Your task to perform on an android device: turn on notifications settings in the gmail app Image 0: 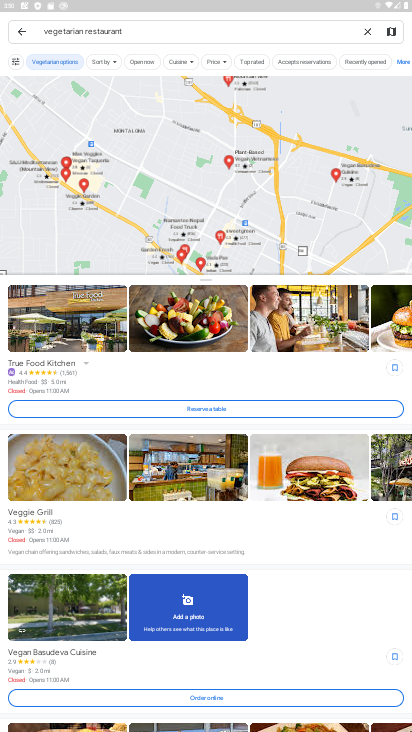
Step 0: press home button
Your task to perform on an android device: turn on notifications settings in the gmail app Image 1: 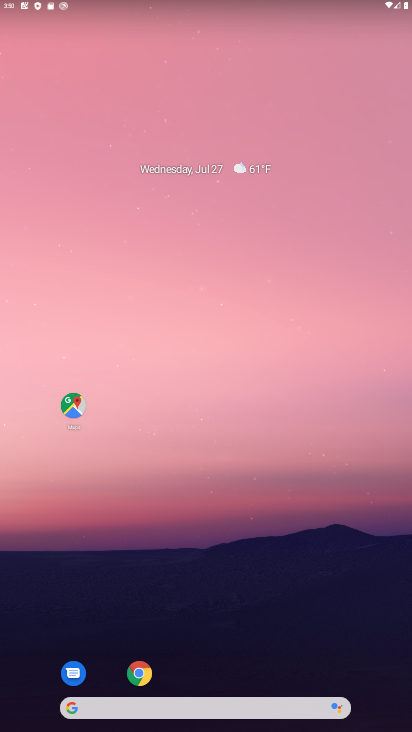
Step 1: drag from (282, 598) to (121, 3)
Your task to perform on an android device: turn on notifications settings in the gmail app Image 2: 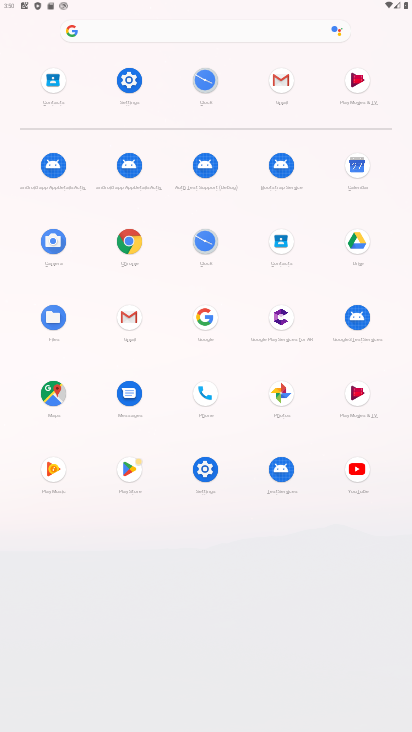
Step 2: click (280, 74)
Your task to perform on an android device: turn on notifications settings in the gmail app Image 3: 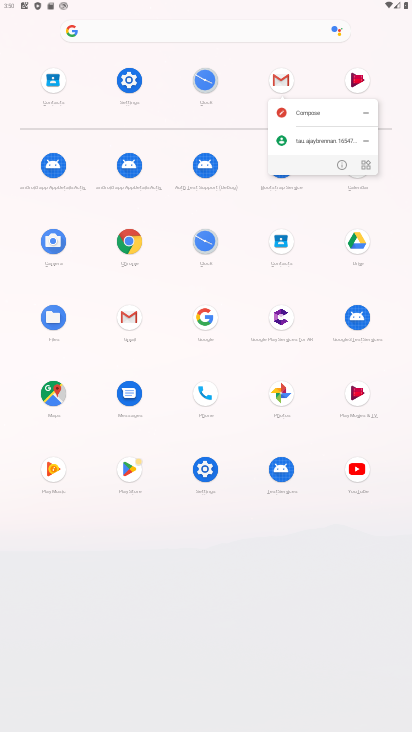
Step 3: click (277, 73)
Your task to perform on an android device: turn on notifications settings in the gmail app Image 4: 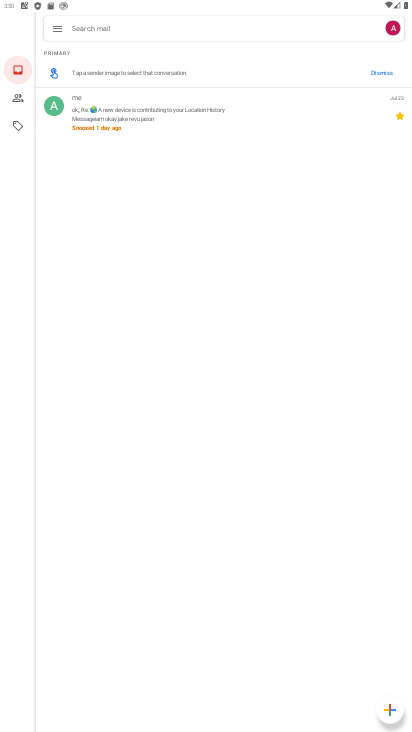
Step 4: click (58, 28)
Your task to perform on an android device: turn on notifications settings in the gmail app Image 5: 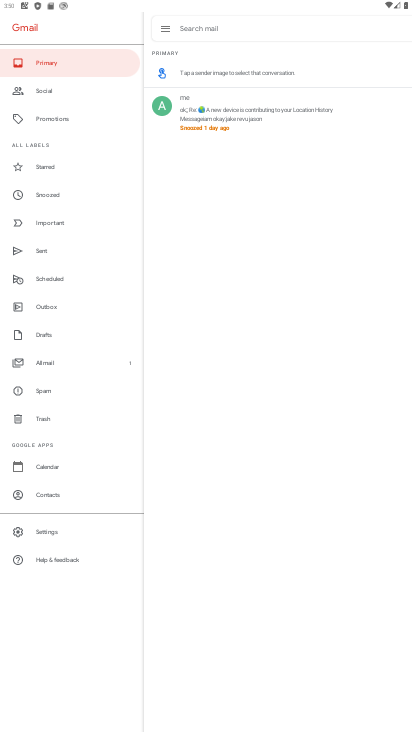
Step 5: click (26, 532)
Your task to perform on an android device: turn on notifications settings in the gmail app Image 6: 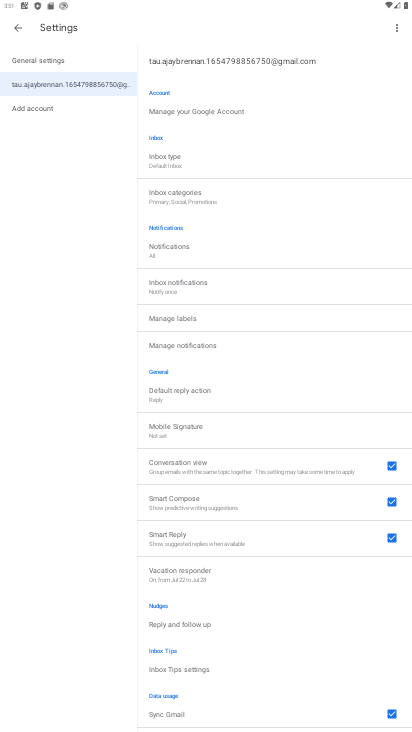
Step 6: click (231, 339)
Your task to perform on an android device: turn on notifications settings in the gmail app Image 7: 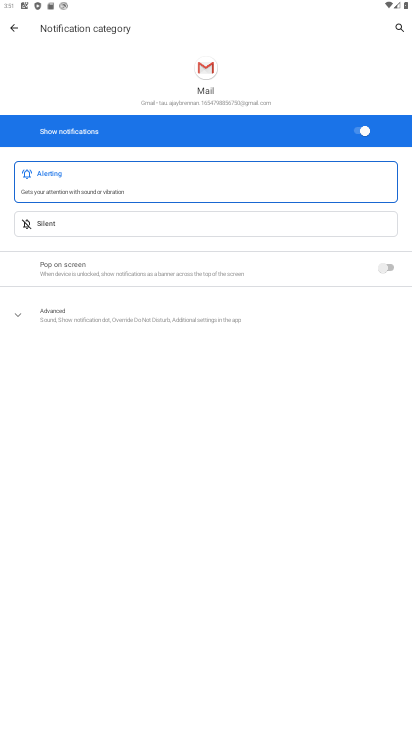
Step 7: task complete